Your task to perform on an android device: manage bookmarks in the chrome app Image 0: 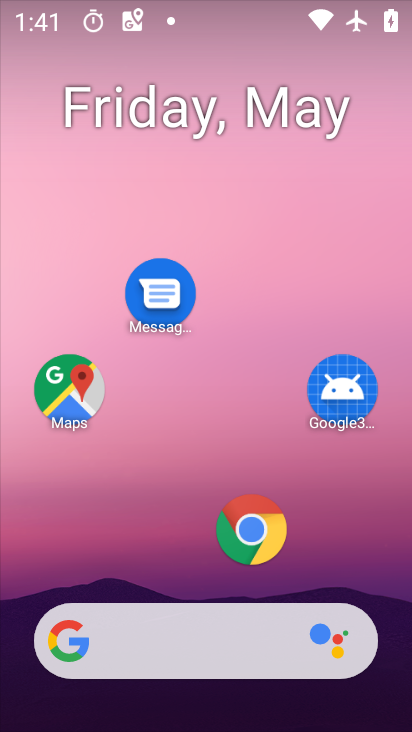
Step 0: click (262, 549)
Your task to perform on an android device: manage bookmarks in the chrome app Image 1: 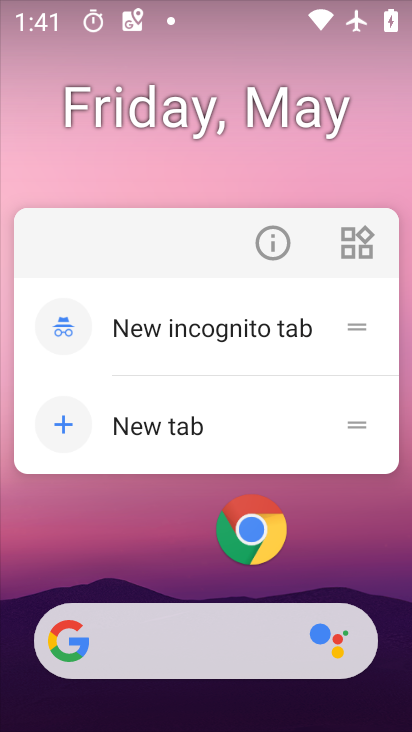
Step 1: click (261, 552)
Your task to perform on an android device: manage bookmarks in the chrome app Image 2: 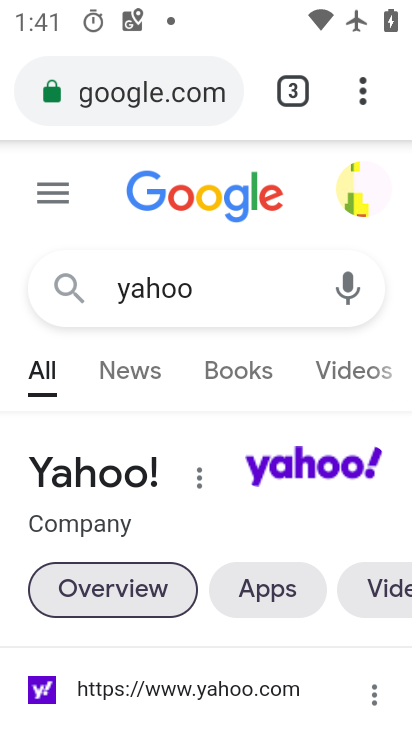
Step 2: click (348, 83)
Your task to perform on an android device: manage bookmarks in the chrome app Image 3: 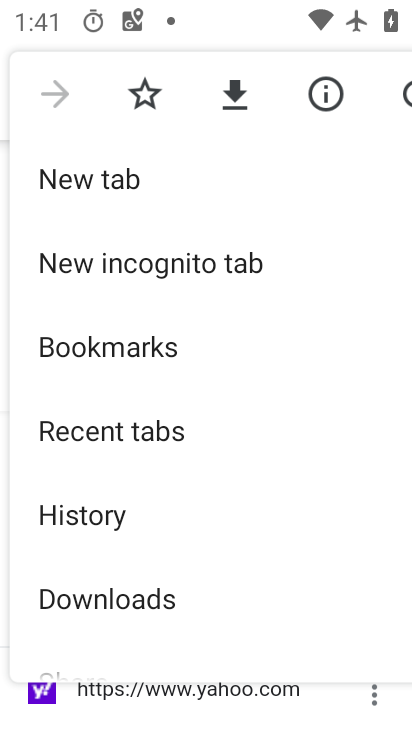
Step 3: drag from (162, 535) to (217, 245)
Your task to perform on an android device: manage bookmarks in the chrome app Image 4: 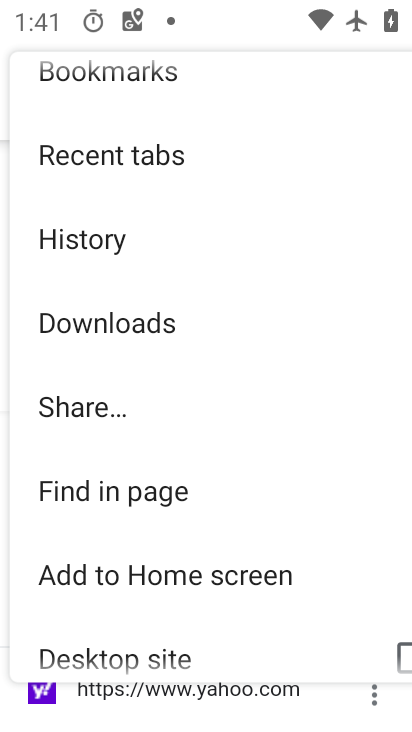
Step 4: drag from (92, 559) to (82, 201)
Your task to perform on an android device: manage bookmarks in the chrome app Image 5: 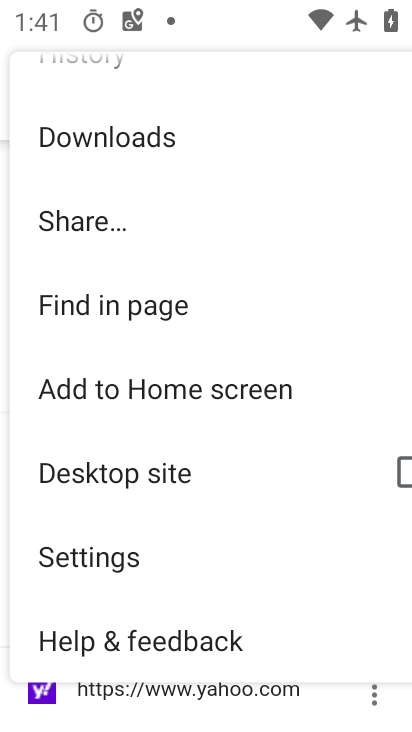
Step 5: click (166, 555)
Your task to perform on an android device: manage bookmarks in the chrome app Image 6: 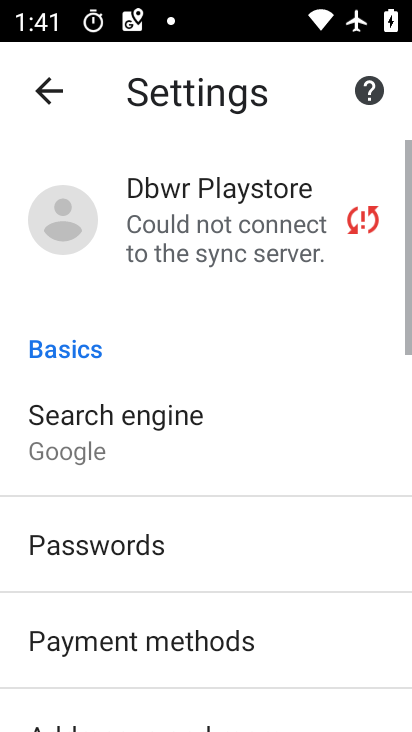
Step 6: drag from (166, 555) to (177, 393)
Your task to perform on an android device: manage bookmarks in the chrome app Image 7: 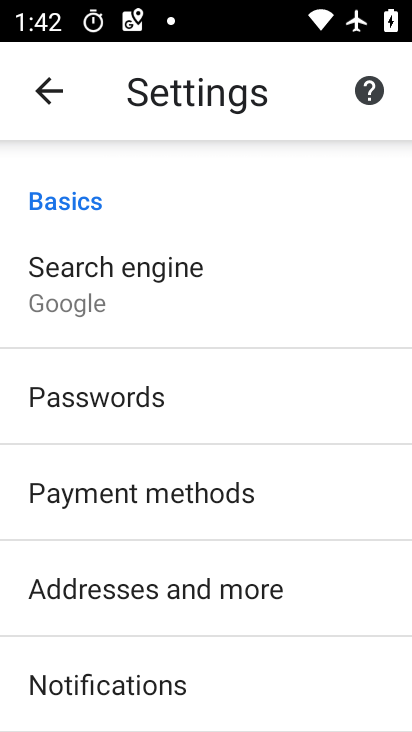
Step 7: drag from (120, 463) to (181, 85)
Your task to perform on an android device: manage bookmarks in the chrome app Image 8: 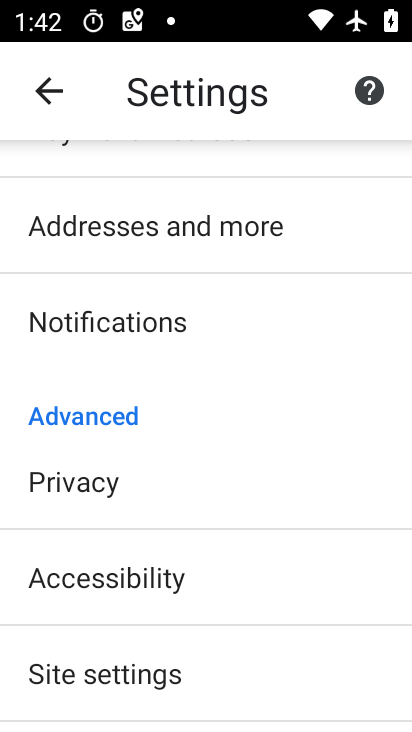
Step 8: drag from (198, 450) to (201, 243)
Your task to perform on an android device: manage bookmarks in the chrome app Image 9: 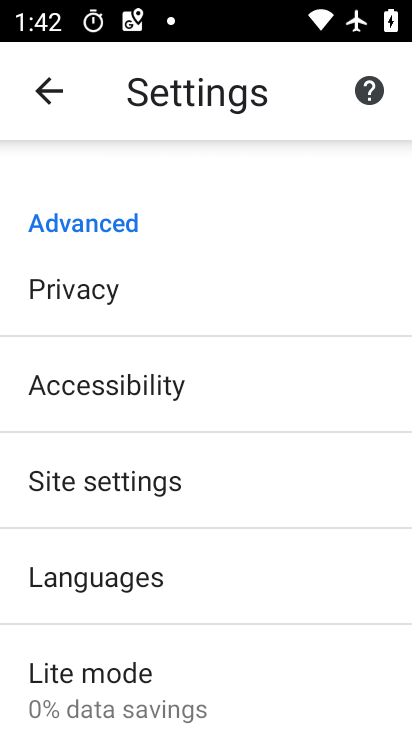
Step 9: click (48, 93)
Your task to perform on an android device: manage bookmarks in the chrome app Image 10: 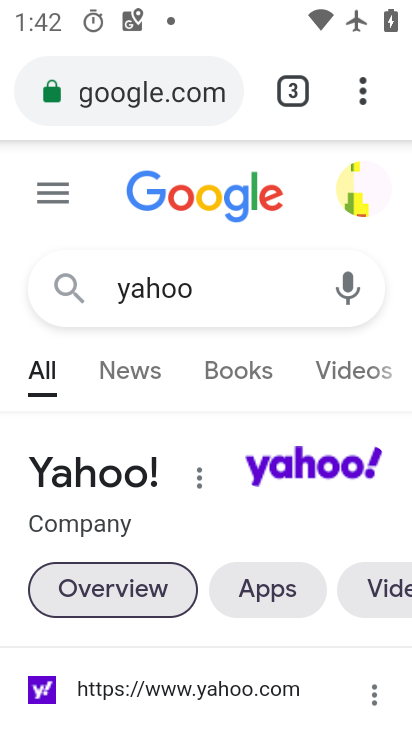
Step 10: click (354, 97)
Your task to perform on an android device: manage bookmarks in the chrome app Image 11: 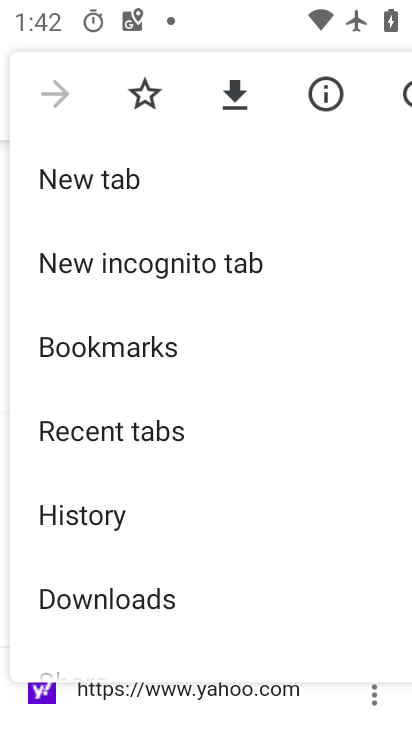
Step 11: click (143, 351)
Your task to perform on an android device: manage bookmarks in the chrome app Image 12: 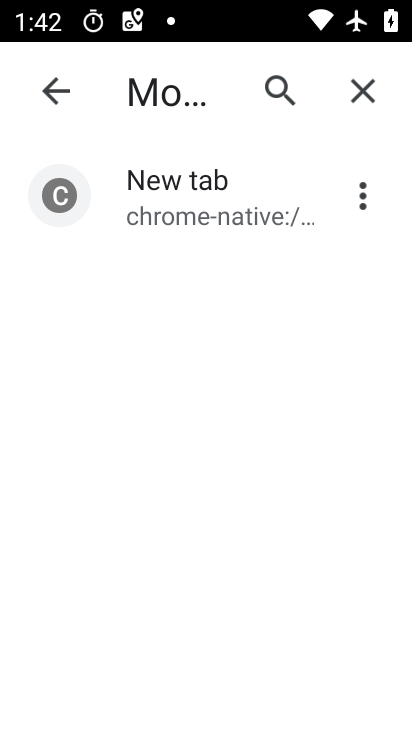
Step 12: task complete